Your task to perform on an android device: open sync settings in chrome Image 0: 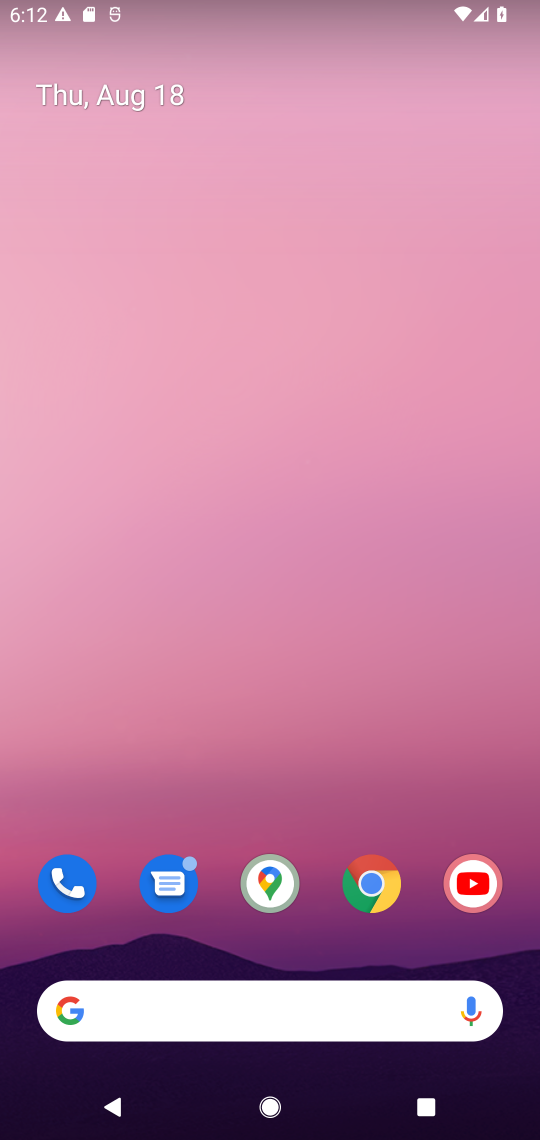
Step 0: click (357, 888)
Your task to perform on an android device: open sync settings in chrome Image 1: 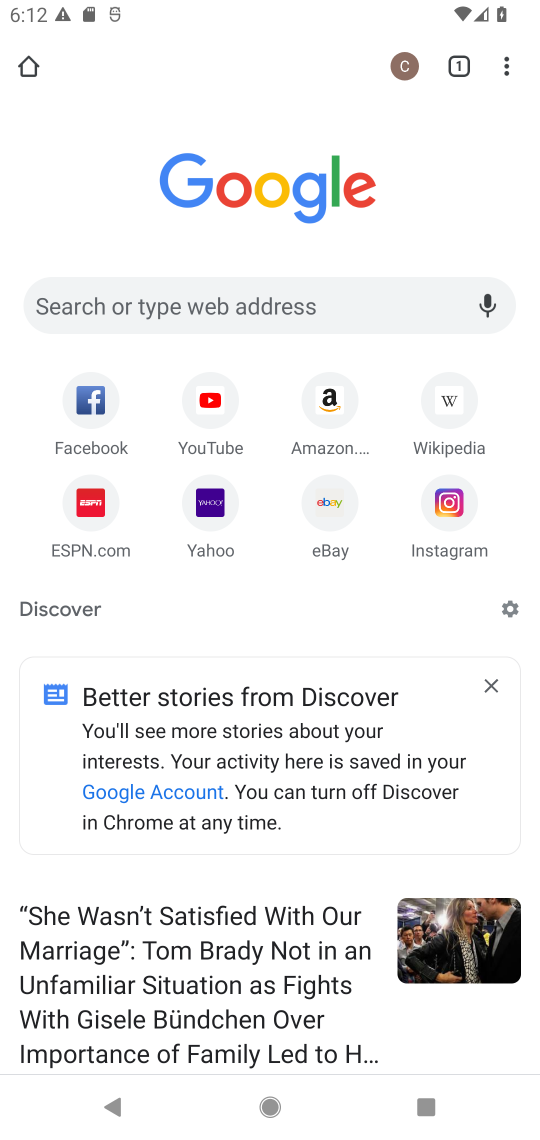
Step 1: click (509, 63)
Your task to perform on an android device: open sync settings in chrome Image 2: 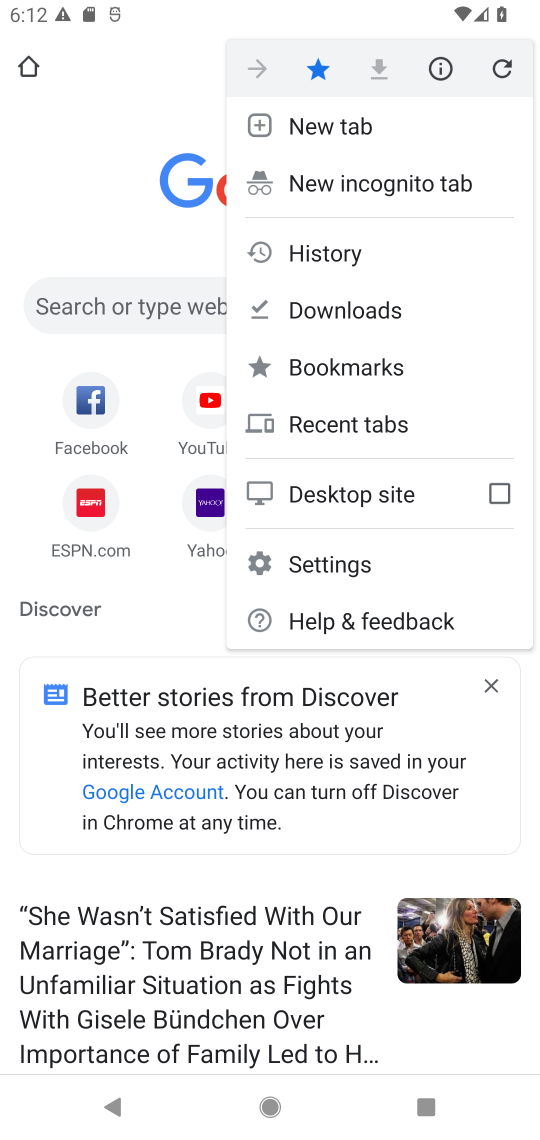
Step 2: click (315, 572)
Your task to perform on an android device: open sync settings in chrome Image 3: 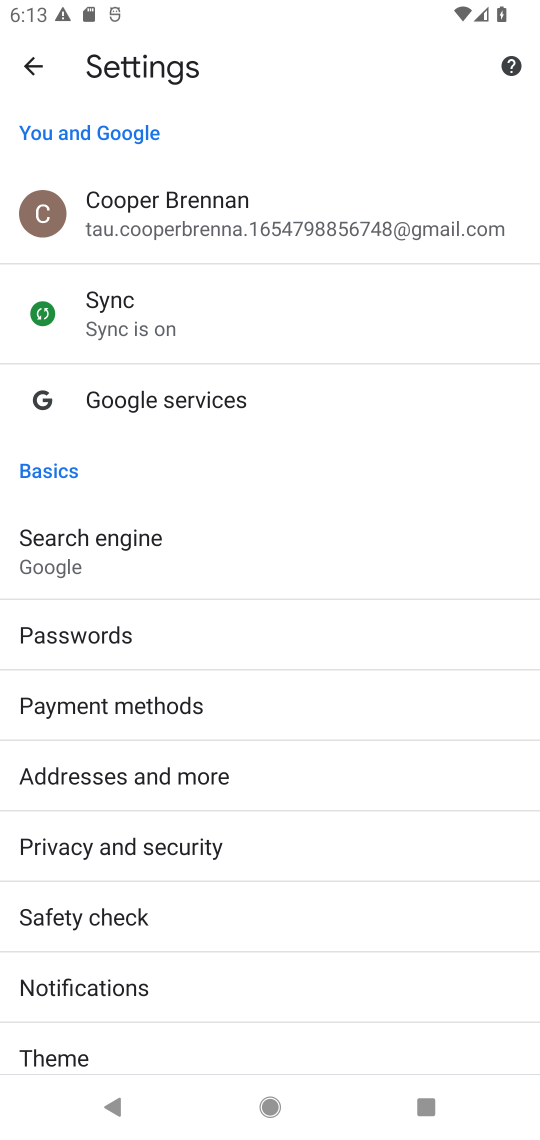
Step 3: click (142, 321)
Your task to perform on an android device: open sync settings in chrome Image 4: 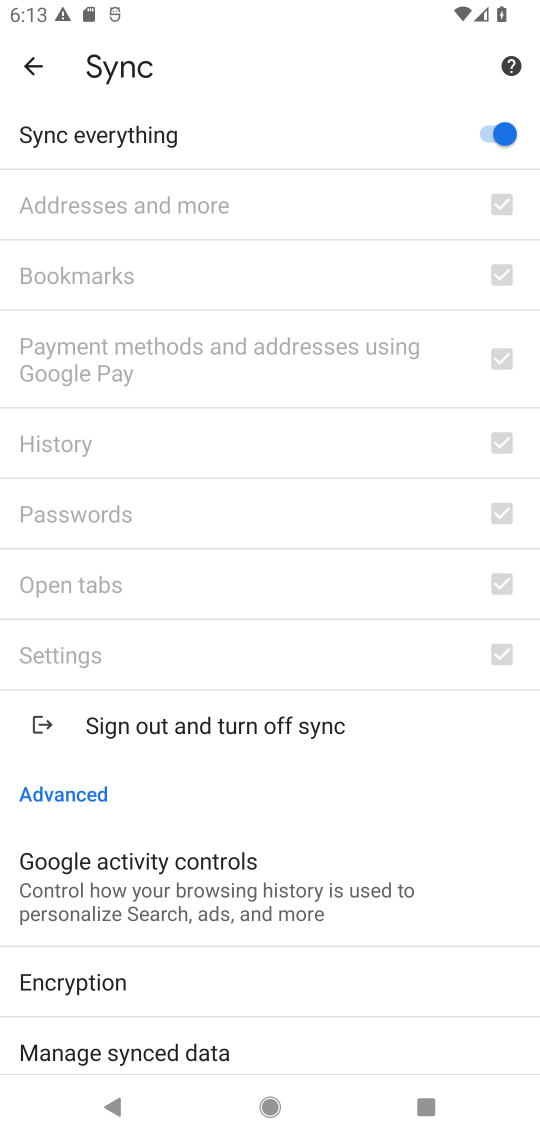
Step 4: task complete